Your task to perform on an android device: uninstall "Instagram" Image 0: 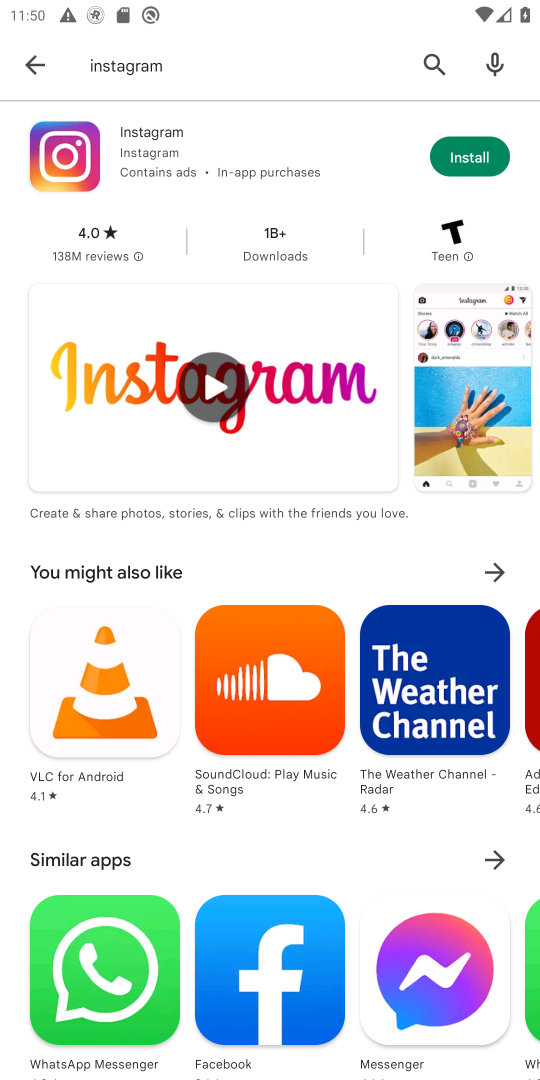
Step 0: click (235, 132)
Your task to perform on an android device: uninstall "Instagram" Image 1: 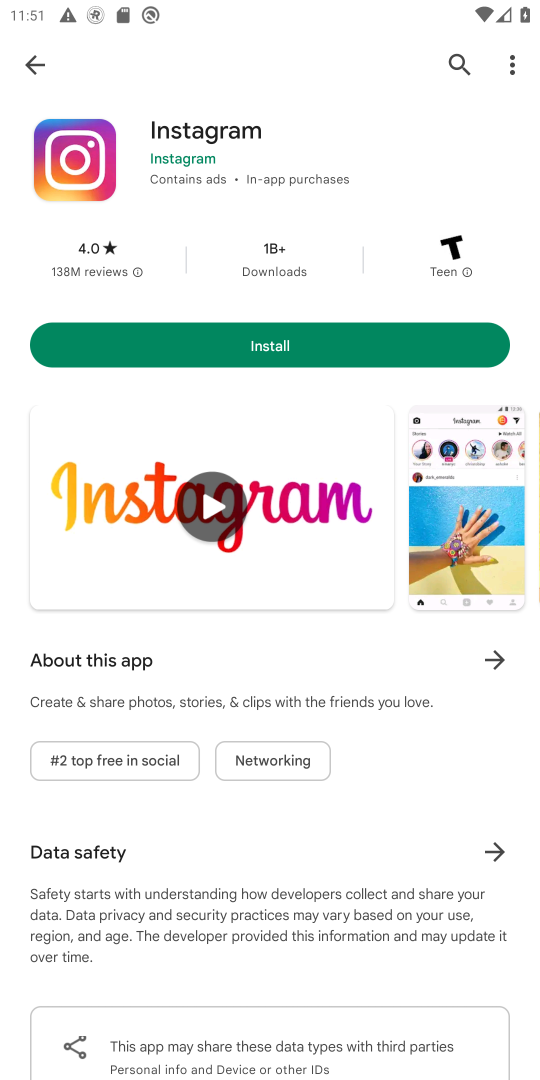
Step 1: task complete